Your task to perform on an android device: turn on the 12-hour format for clock Image 0: 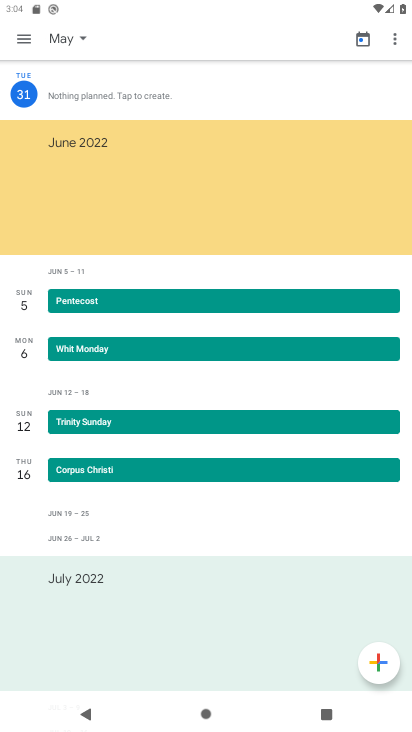
Step 0: press home button
Your task to perform on an android device: turn on the 12-hour format for clock Image 1: 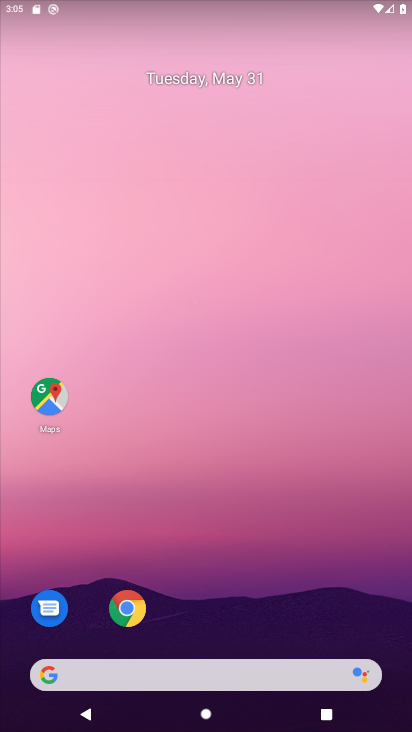
Step 1: drag from (228, 617) to (193, 121)
Your task to perform on an android device: turn on the 12-hour format for clock Image 2: 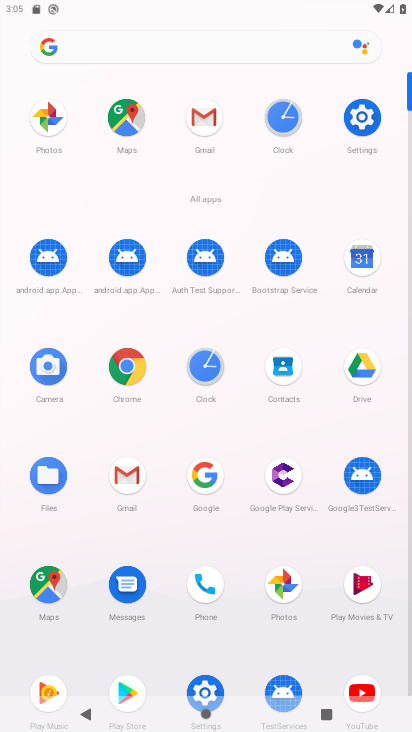
Step 2: click (283, 110)
Your task to perform on an android device: turn on the 12-hour format for clock Image 3: 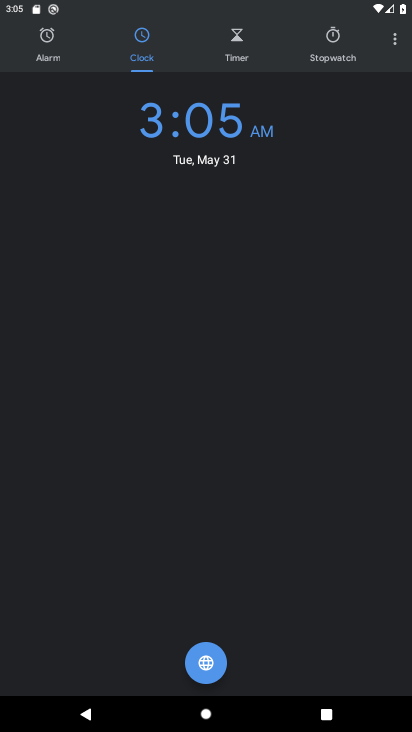
Step 3: click (391, 52)
Your task to perform on an android device: turn on the 12-hour format for clock Image 4: 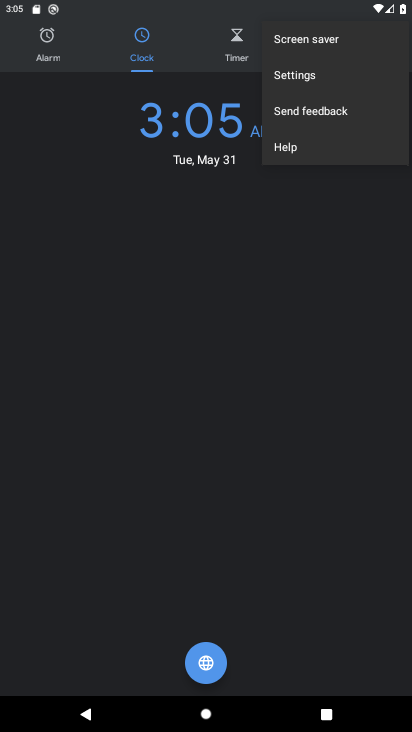
Step 4: click (348, 74)
Your task to perform on an android device: turn on the 12-hour format for clock Image 5: 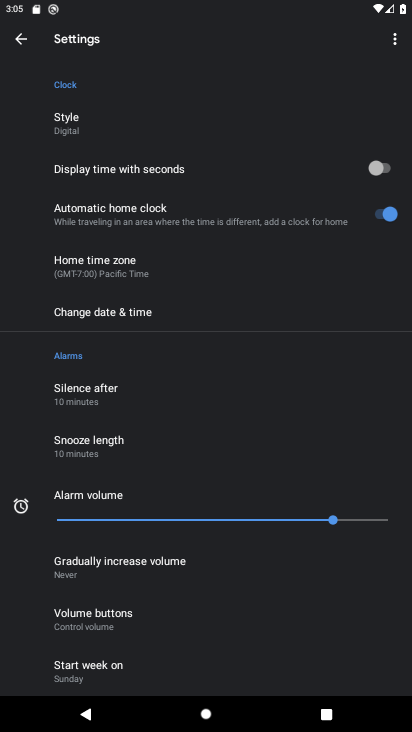
Step 5: click (187, 307)
Your task to perform on an android device: turn on the 12-hour format for clock Image 6: 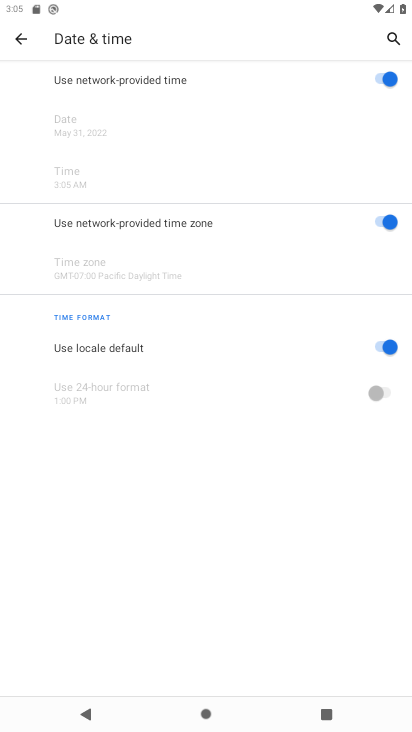
Step 6: task complete